Your task to perform on an android device: Open the web browser Image 0: 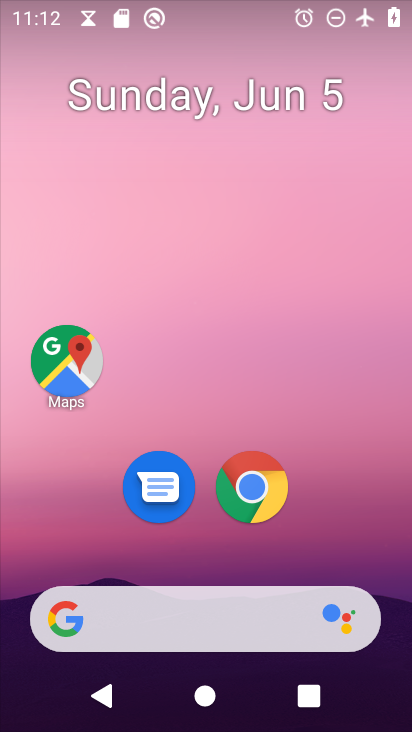
Step 0: click (264, 484)
Your task to perform on an android device: Open the web browser Image 1: 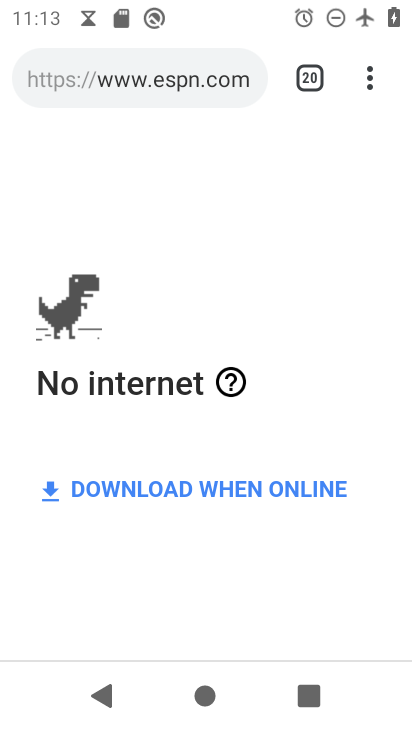
Step 1: task complete